Your task to perform on an android device: add a contact in the contacts app Image 0: 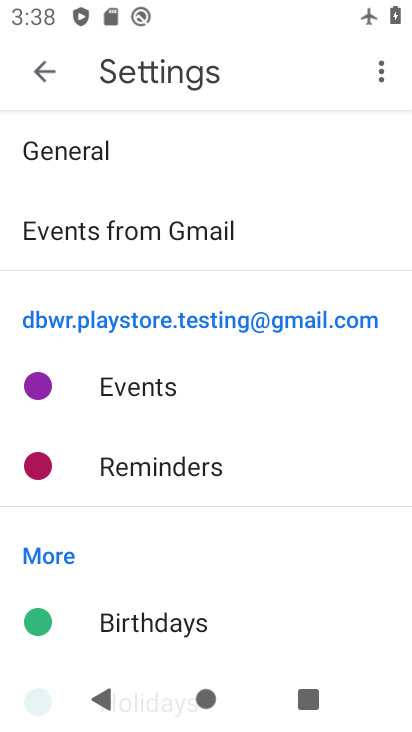
Step 0: press home button
Your task to perform on an android device: add a contact in the contacts app Image 1: 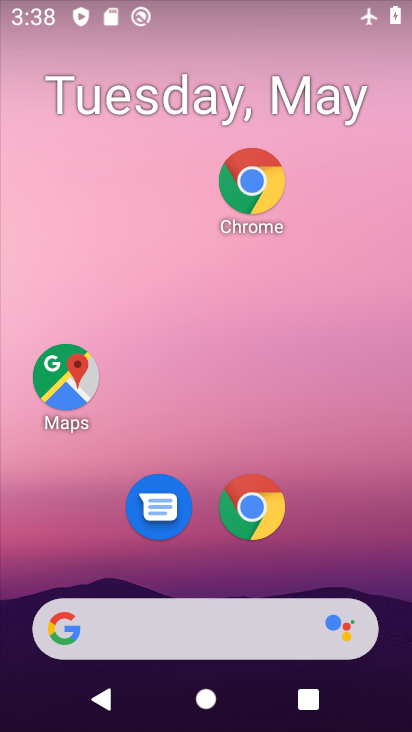
Step 1: drag from (365, 537) to (396, 97)
Your task to perform on an android device: add a contact in the contacts app Image 2: 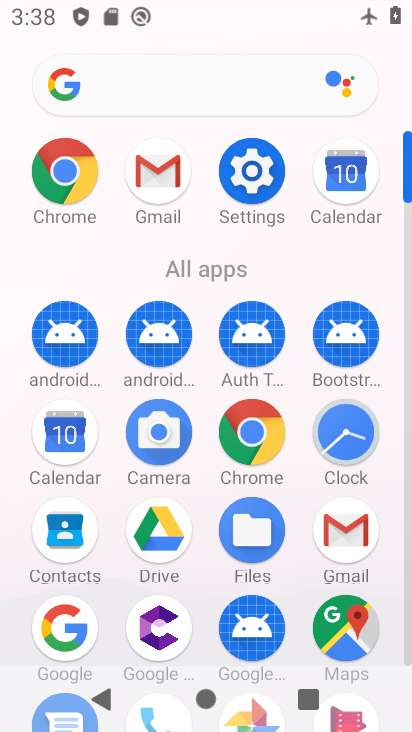
Step 2: drag from (393, 575) to (379, 200)
Your task to perform on an android device: add a contact in the contacts app Image 3: 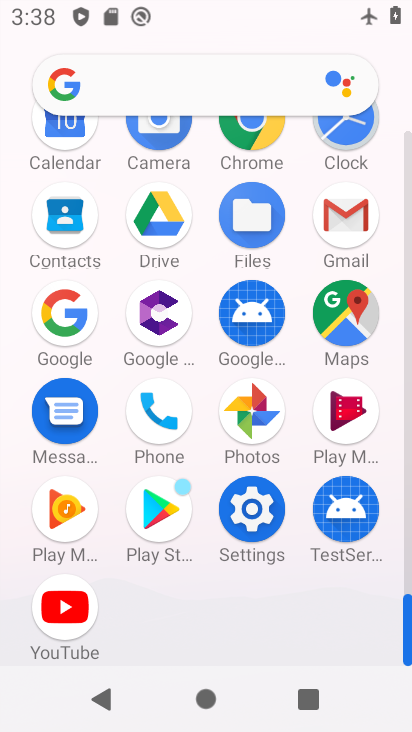
Step 3: click (67, 236)
Your task to perform on an android device: add a contact in the contacts app Image 4: 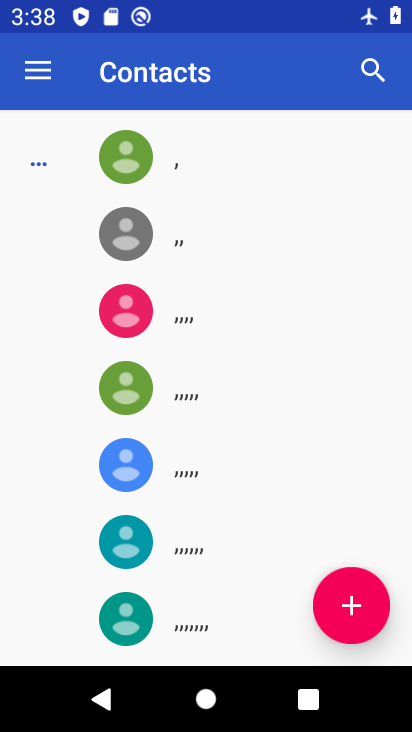
Step 4: click (357, 618)
Your task to perform on an android device: add a contact in the contacts app Image 5: 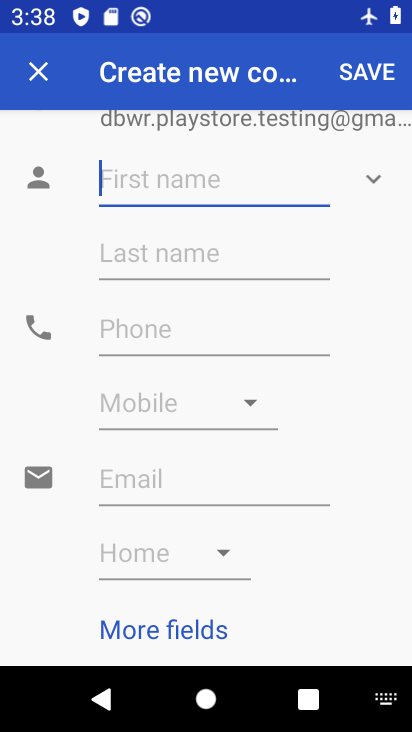
Step 5: type "yhut"
Your task to perform on an android device: add a contact in the contacts app Image 6: 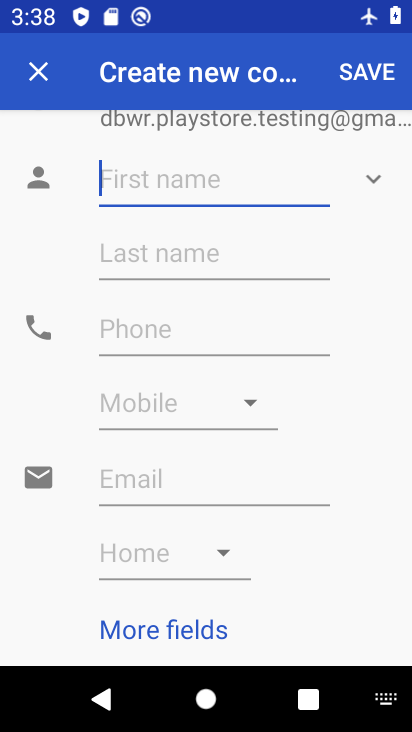
Step 6: click (115, 333)
Your task to perform on an android device: add a contact in the contacts app Image 7: 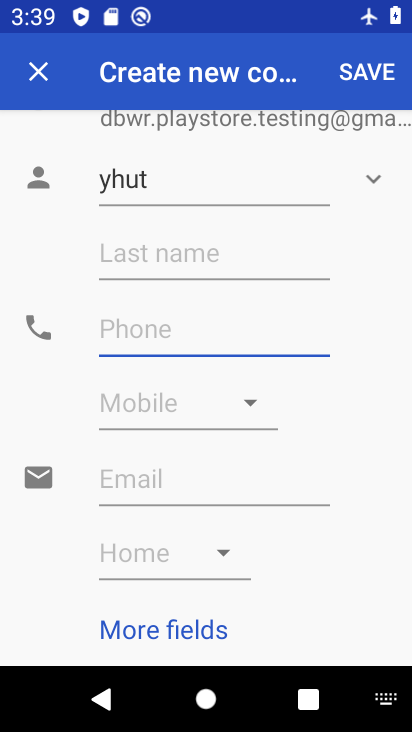
Step 7: type "655544456"
Your task to perform on an android device: add a contact in the contacts app Image 8: 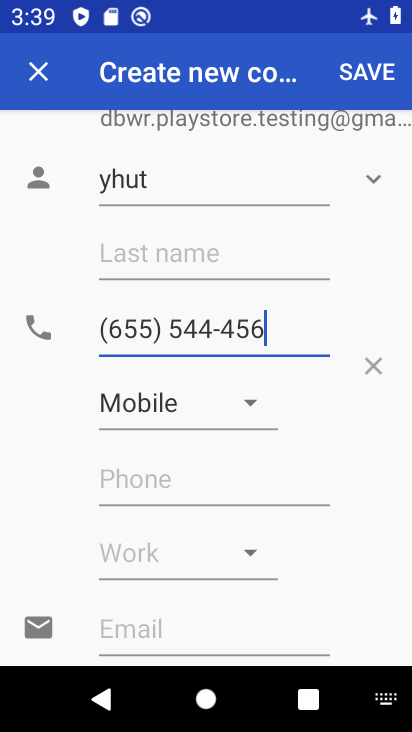
Step 8: click (369, 70)
Your task to perform on an android device: add a contact in the contacts app Image 9: 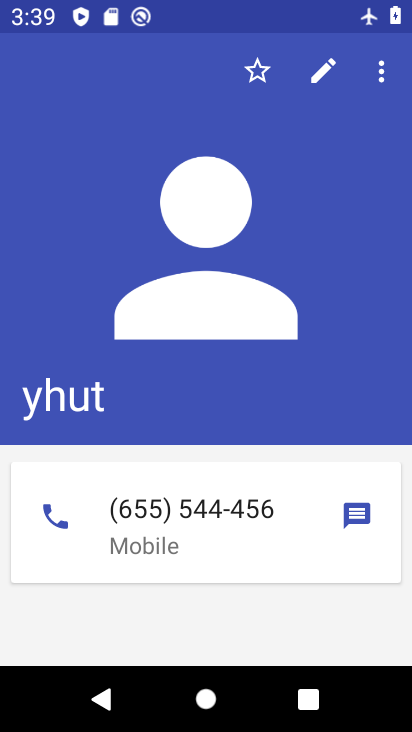
Step 9: task complete